Your task to perform on an android device: change the clock display to analog Image 0: 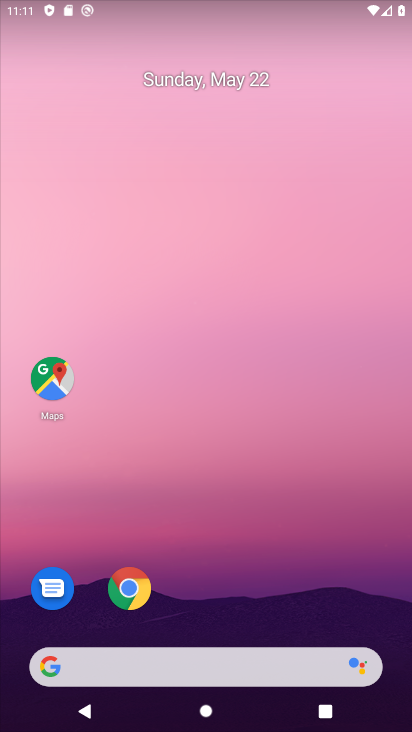
Step 0: drag from (243, 679) to (215, 123)
Your task to perform on an android device: change the clock display to analog Image 1: 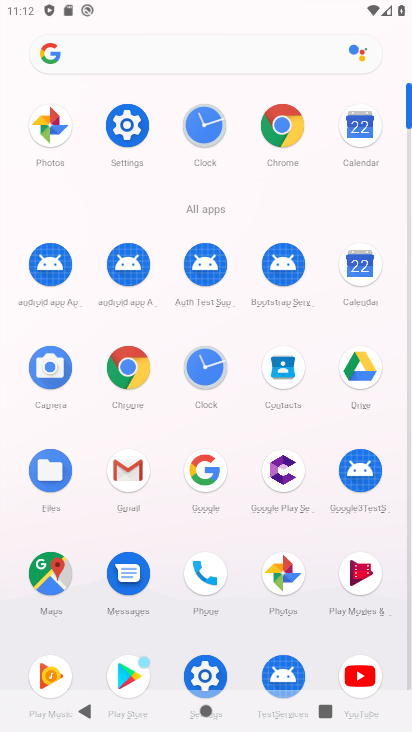
Step 1: click (206, 354)
Your task to perform on an android device: change the clock display to analog Image 2: 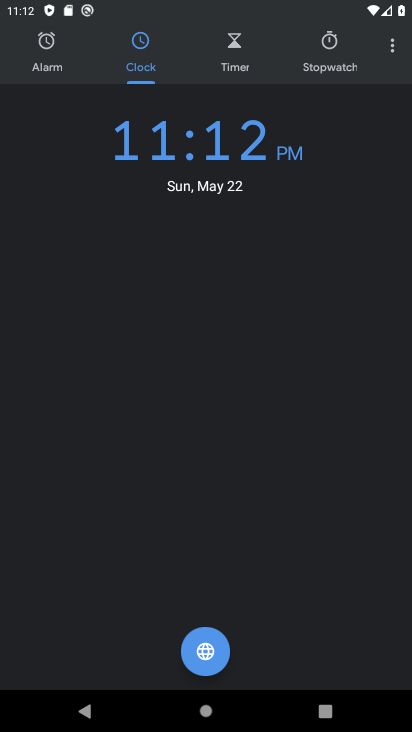
Step 2: click (395, 45)
Your task to perform on an android device: change the clock display to analog Image 3: 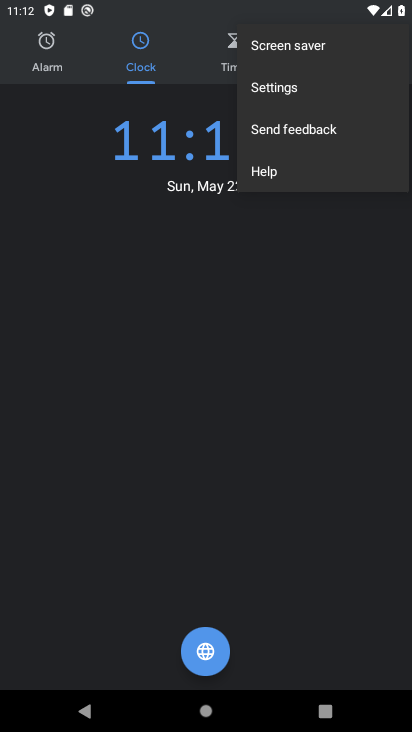
Step 3: click (291, 96)
Your task to perform on an android device: change the clock display to analog Image 4: 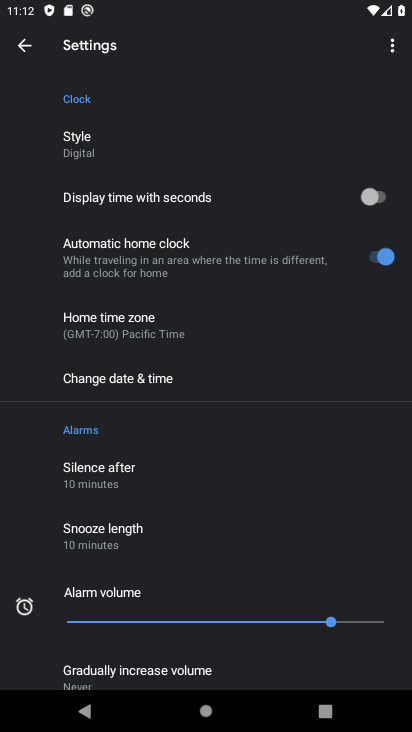
Step 4: click (147, 139)
Your task to perform on an android device: change the clock display to analog Image 5: 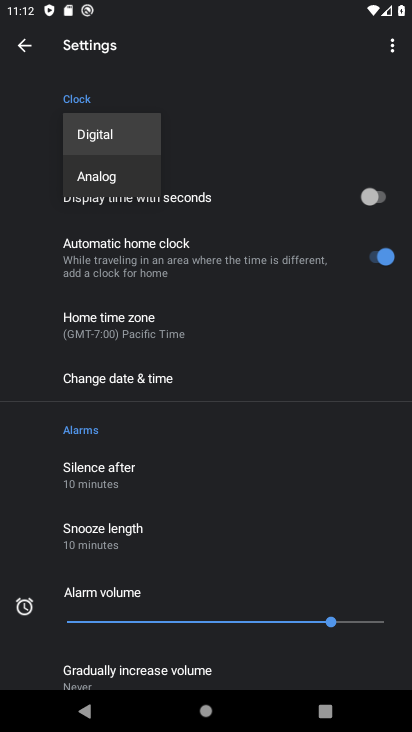
Step 5: click (113, 168)
Your task to perform on an android device: change the clock display to analog Image 6: 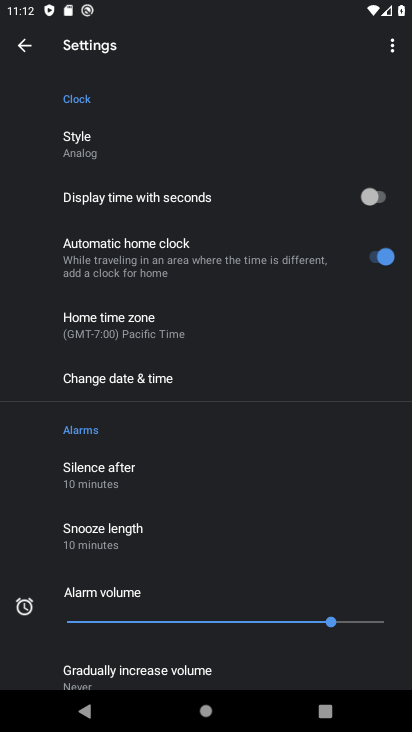
Step 6: task complete